Your task to perform on an android device: turn notification dots off Image 0: 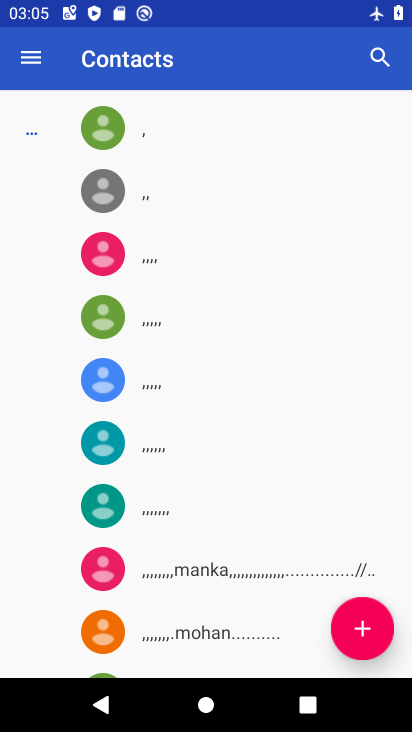
Step 0: press back button
Your task to perform on an android device: turn notification dots off Image 1: 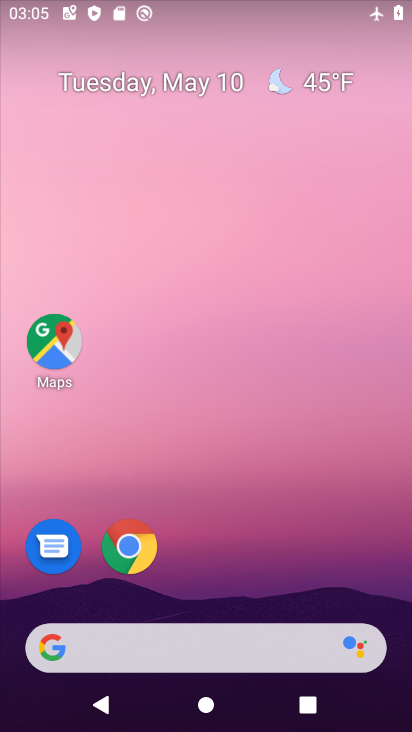
Step 1: drag from (263, 580) to (222, 11)
Your task to perform on an android device: turn notification dots off Image 2: 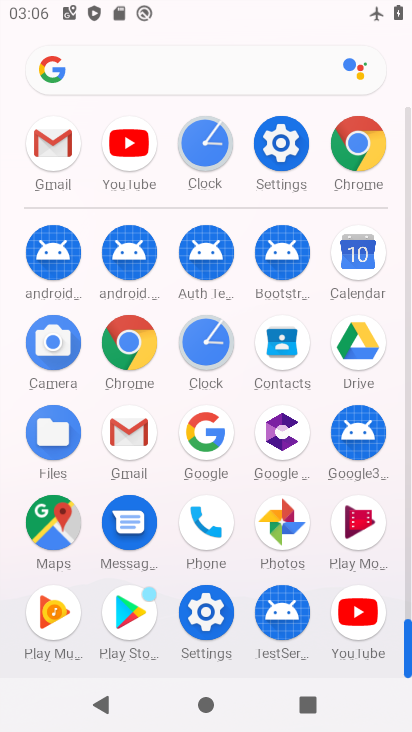
Step 2: click (204, 611)
Your task to perform on an android device: turn notification dots off Image 3: 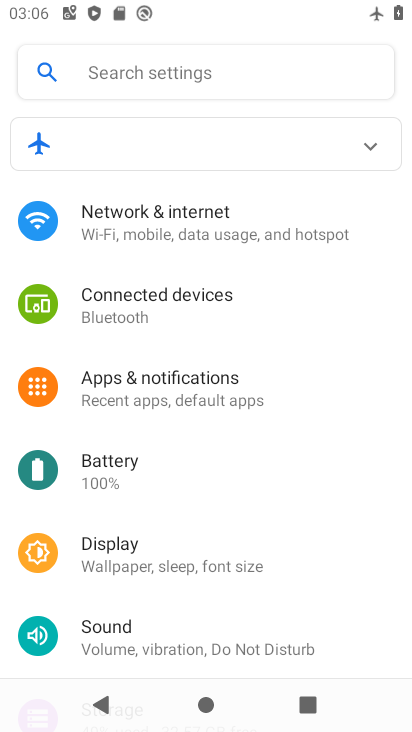
Step 3: click (169, 400)
Your task to perform on an android device: turn notification dots off Image 4: 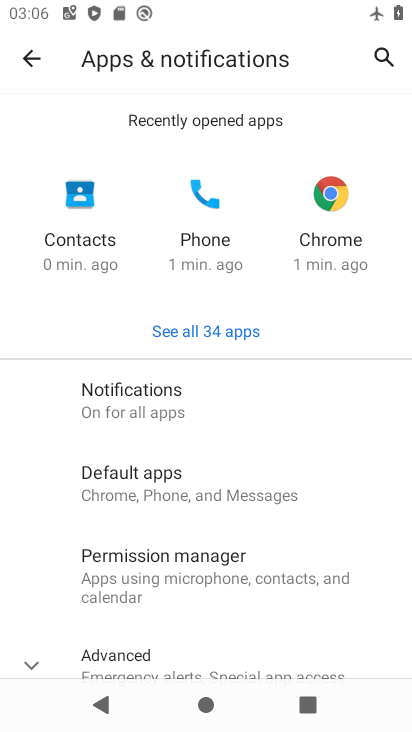
Step 4: click (169, 400)
Your task to perform on an android device: turn notification dots off Image 5: 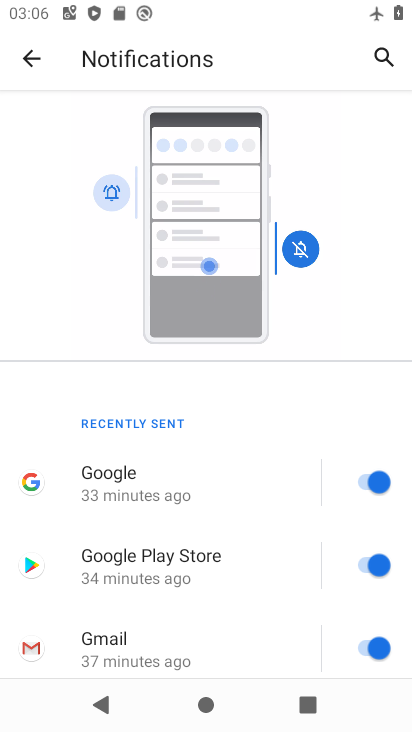
Step 5: drag from (220, 580) to (223, 134)
Your task to perform on an android device: turn notification dots off Image 6: 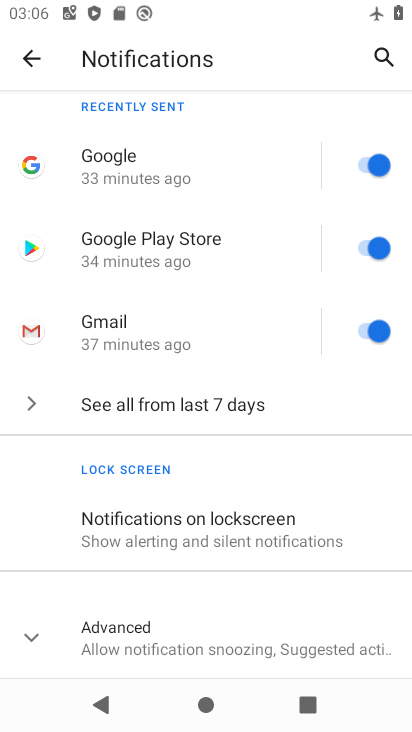
Step 6: click (124, 626)
Your task to perform on an android device: turn notification dots off Image 7: 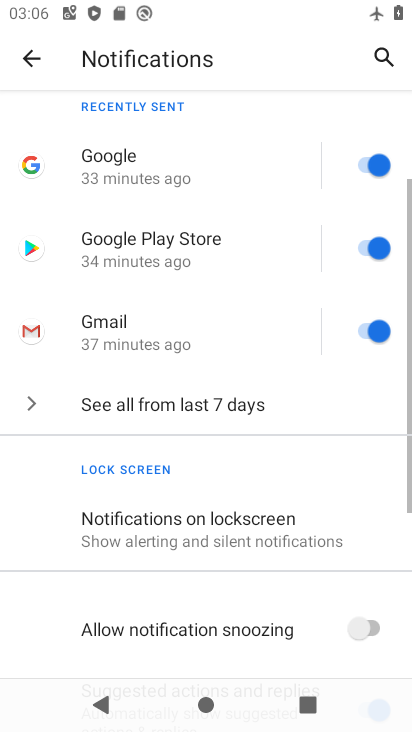
Step 7: drag from (203, 619) to (247, 176)
Your task to perform on an android device: turn notification dots off Image 8: 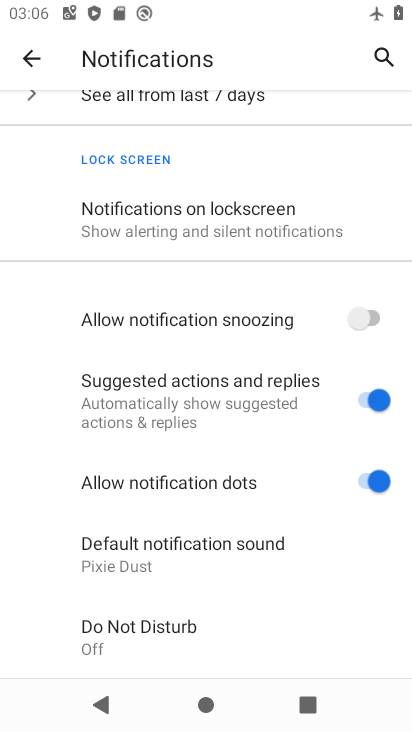
Step 8: click (368, 480)
Your task to perform on an android device: turn notification dots off Image 9: 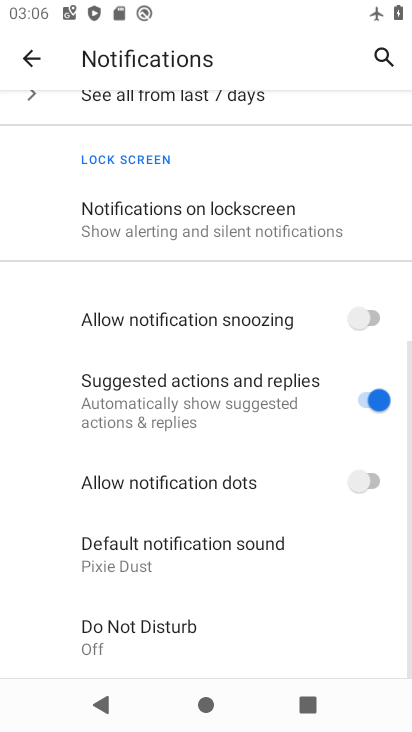
Step 9: task complete